Your task to perform on an android device: Open notification settings Image 0: 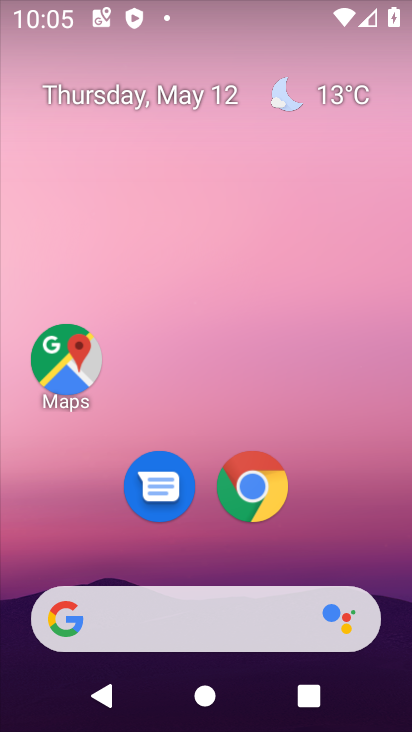
Step 0: drag from (370, 502) to (283, 180)
Your task to perform on an android device: Open notification settings Image 1: 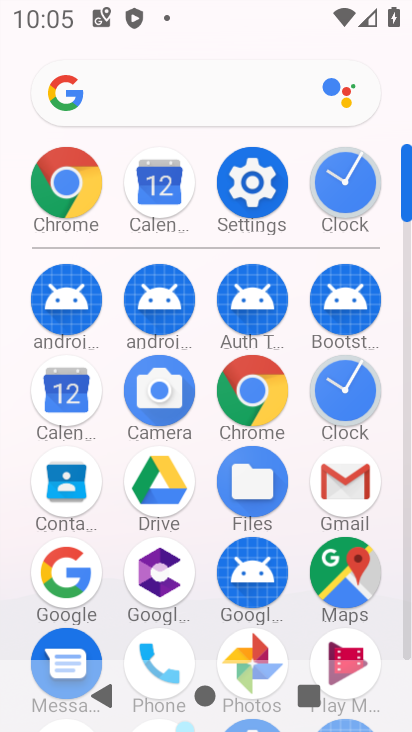
Step 1: click (283, 180)
Your task to perform on an android device: Open notification settings Image 2: 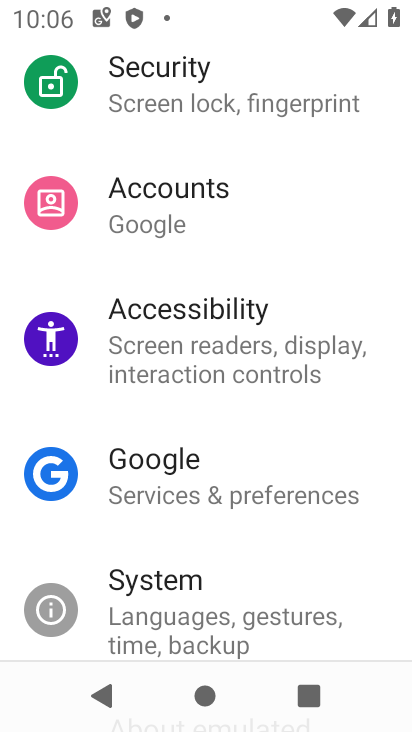
Step 2: drag from (244, 198) to (230, 548)
Your task to perform on an android device: Open notification settings Image 3: 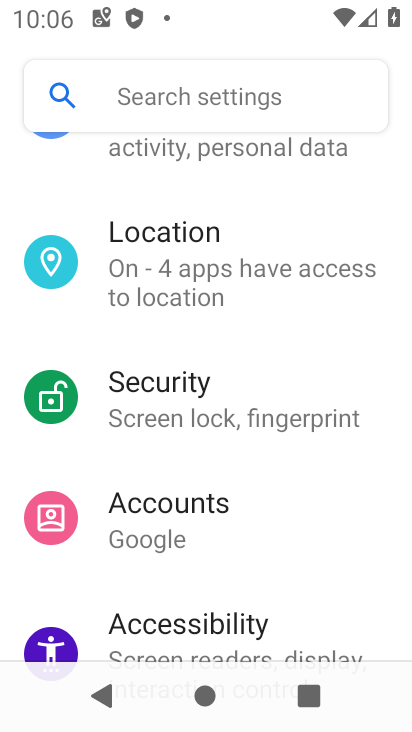
Step 3: drag from (265, 181) to (222, 688)
Your task to perform on an android device: Open notification settings Image 4: 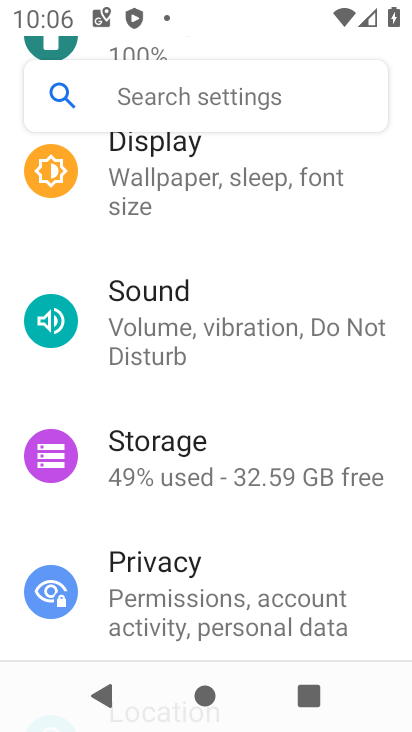
Step 4: drag from (232, 259) to (233, 725)
Your task to perform on an android device: Open notification settings Image 5: 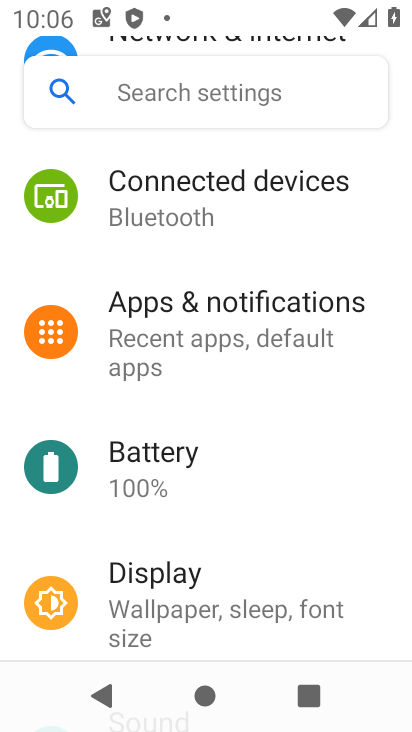
Step 5: click (240, 324)
Your task to perform on an android device: Open notification settings Image 6: 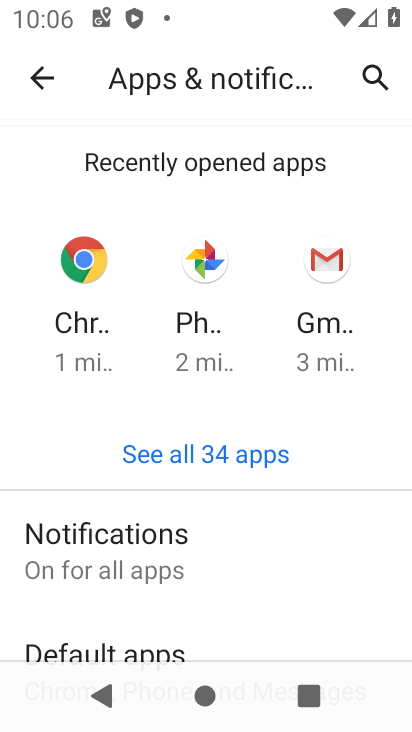
Step 6: task complete